Your task to perform on an android device: open app "Life360: Find Family & Friends" (install if not already installed) Image 0: 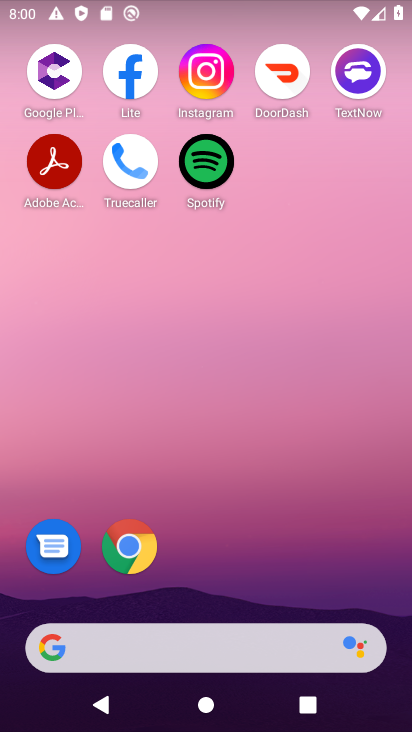
Step 0: drag from (307, 494) to (323, 0)
Your task to perform on an android device: open app "Life360: Find Family & Friends" (install if not already installed) Image 1: 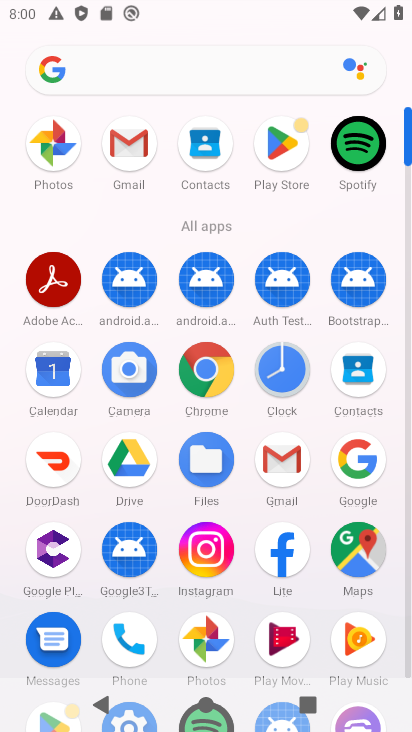
Step 1: click (279, 150)
Your task to perform on an android device: open app "Life360: Find Family & Friends" (install if not already installed) Image 2: 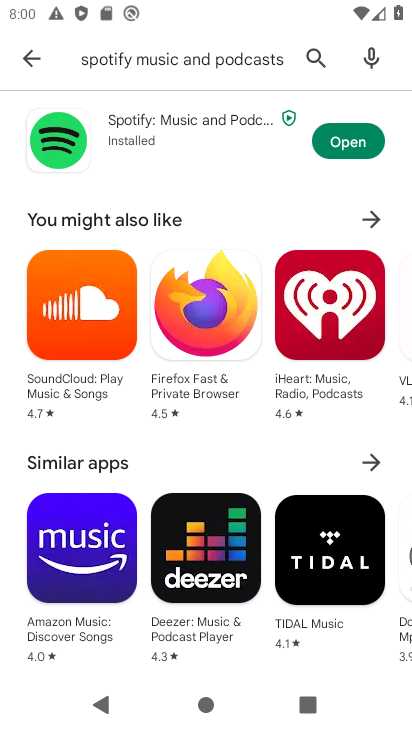
Step 2: type "Li"
Your task to perform on an android device: open app "Life360: Find Family & Friends" (install if not already installed) Image 3: 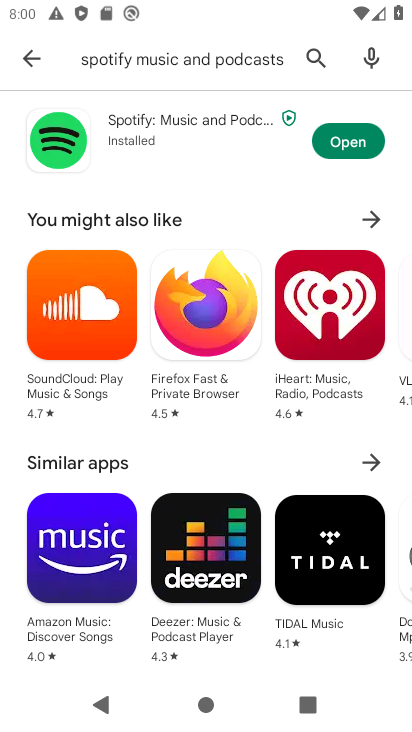
Step 3: click (311, 55)
Your task to perform on an android device: open app "Life360: Find Family & Friends" (install if not already installed) Image 4: 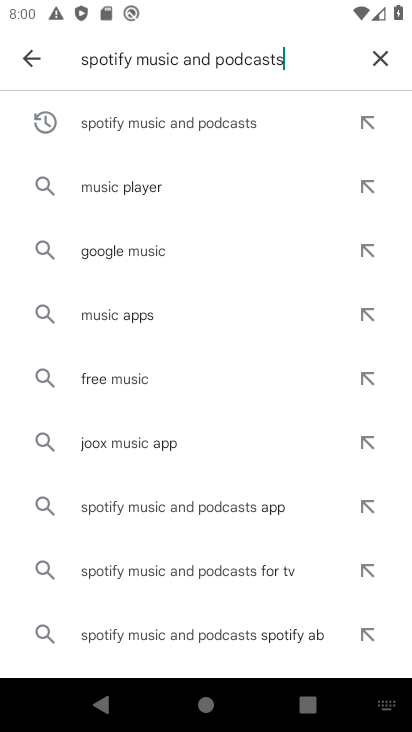
Step 4: click (382, 63)
Your task to perform on an android device: open app "Life360: Find Family & Friends" (install if not already installed) Image 5: 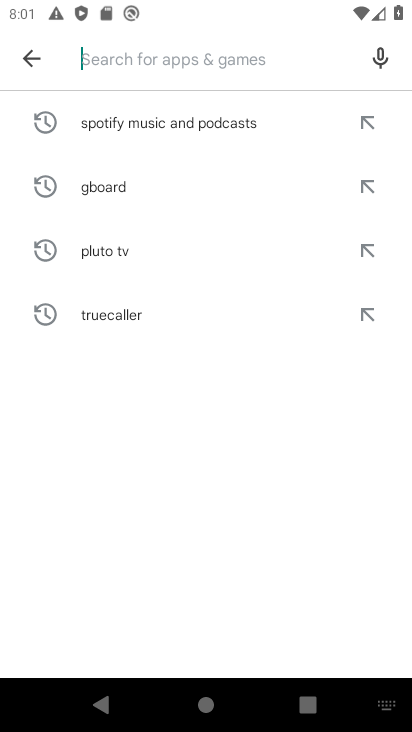
Step 5: type "life360: find family"
Your task to perform on an android device: open app "Life360: Find Family & Friends" (install if not already installed) Image 6: 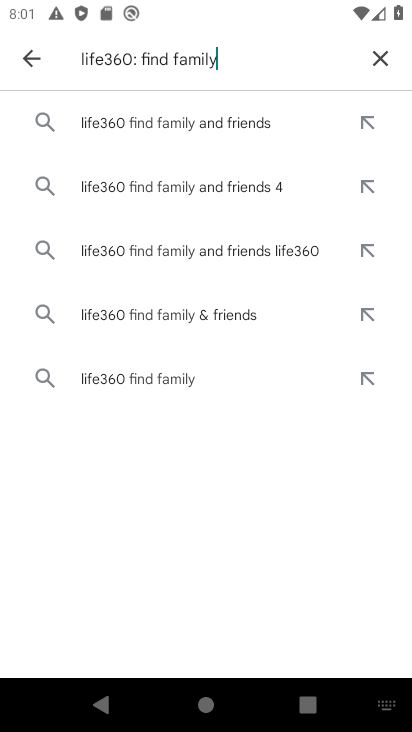
Step 6: click (233, 124)
Your task to perform on an android device: open app "Life360: Find Family & Friends" (install if not already installed) Image 7: 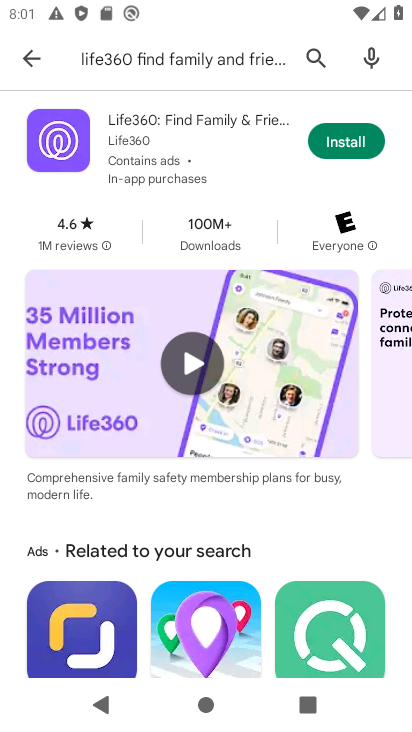
Step 7: click (336, 141)
Your task to perform on an android device: open app "Life360: Find Family & Friends" (install if not already installed) Image 8: 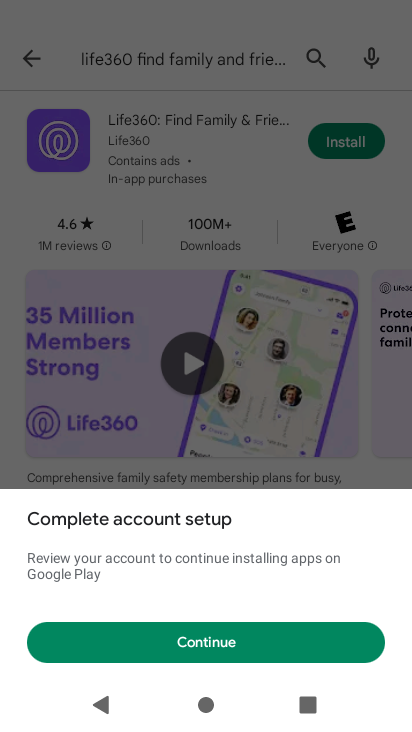
Step 8: click (379, 644)
Your task to perform on an android device: open app "Life360: Find Family & Friends" (install if not already installed) Image 9: 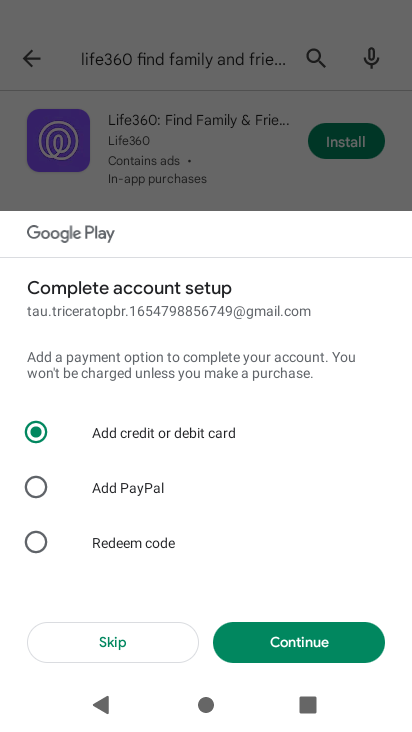
Step 9: click (178, 641)
Your task to perform on an android device: open app "Life360: Find Family & Friends" (install if not already installed) Image 10: 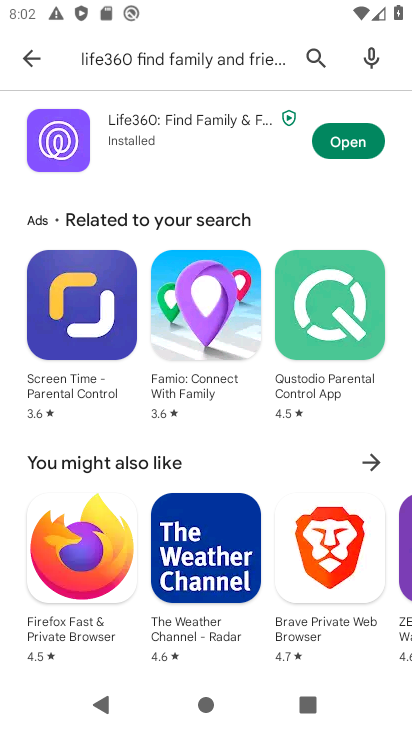
Step 10: click (362, 142)
Your task to perform on an android device: open app "Life360: Find Family & Friends" (install if not already installed) Image 11: 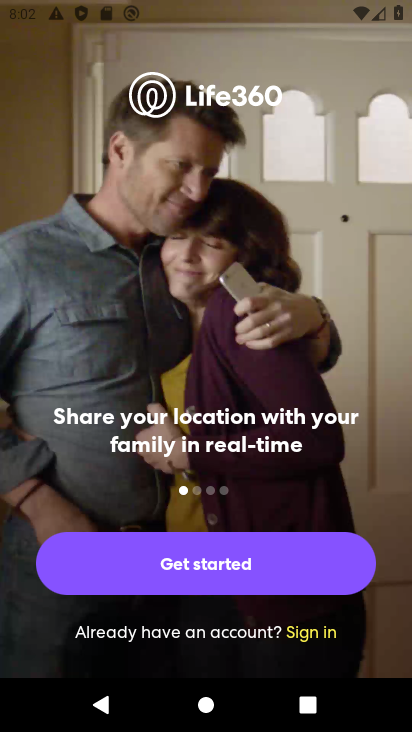
Step 11: click (336, 557)
Your task to perform on an android device: open app "Life360: Find Family & Friends" (install if not already installed) Image 12: 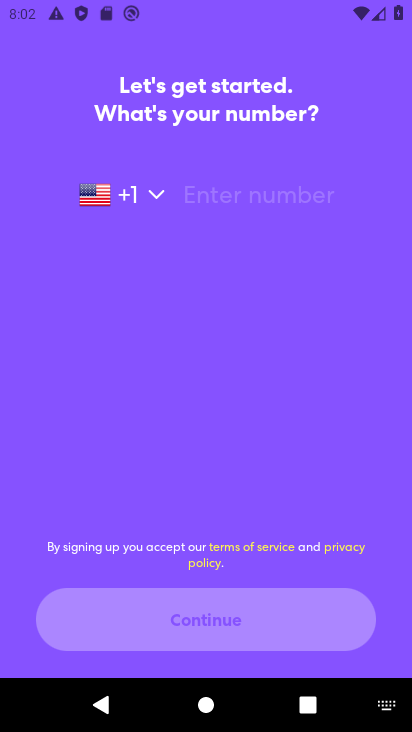
Step 12: task complete